Your task to perform on an android device: Show me popular videos on Youtube Image 0: 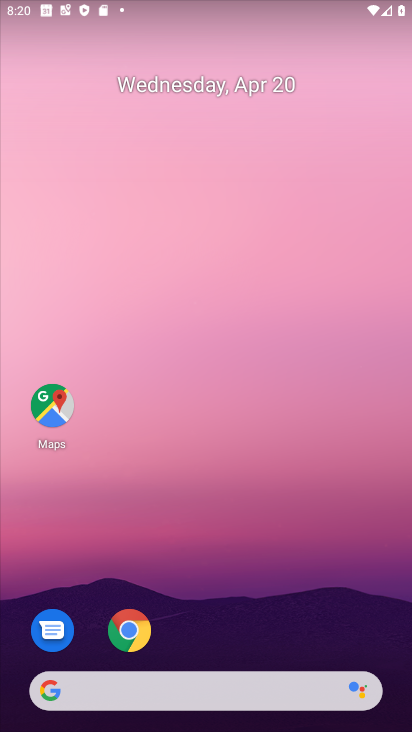
Step 0: drag from (258, 599) to (131, 2)
Your task to perform on an android device: Show me popular videos on Youtube Image 1: 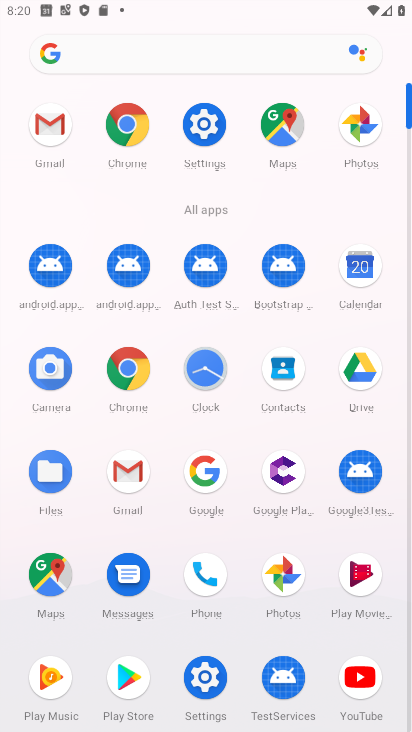
Step 1: click (364, 678)
Your task to perform on an android device: Show me popular videos on Youtube Image 2: 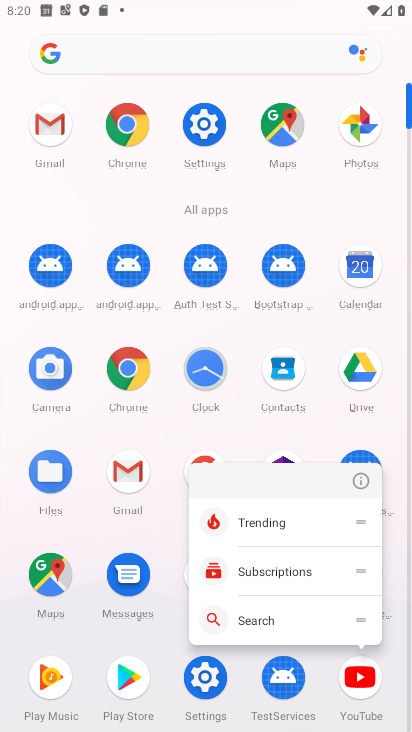
Step 2: click (364, 678)
Your task to perform on an android device: Show me popular videos on Youtube Image 3: 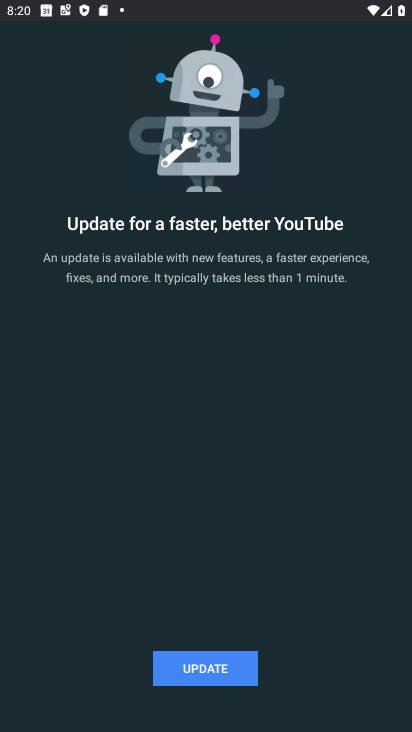
Step 3: click (234, 665)
Your task to perform on an android device: Show me popular videos on Youtube Image 4: 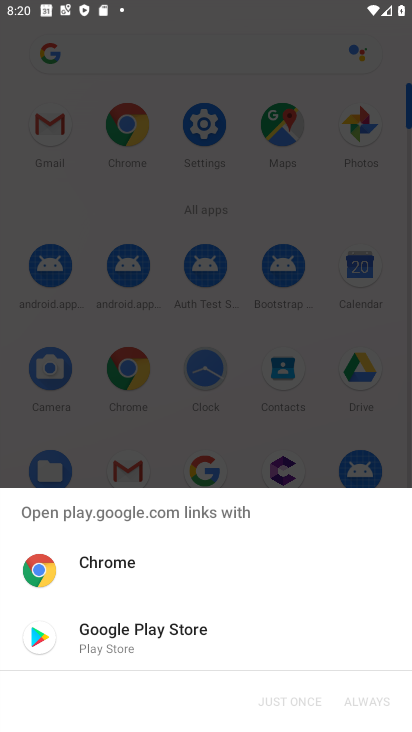
Step 4: click (179, 632)
Your task to perform on an android device: Show me popular videos on Youtube Image 5: 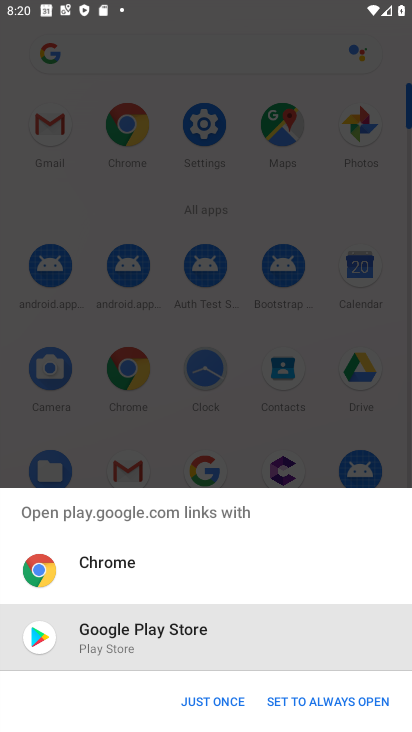
Step 5: click (206, 696)
Your task to perform on an android device: Show me popular videos on Youtube Image 6: 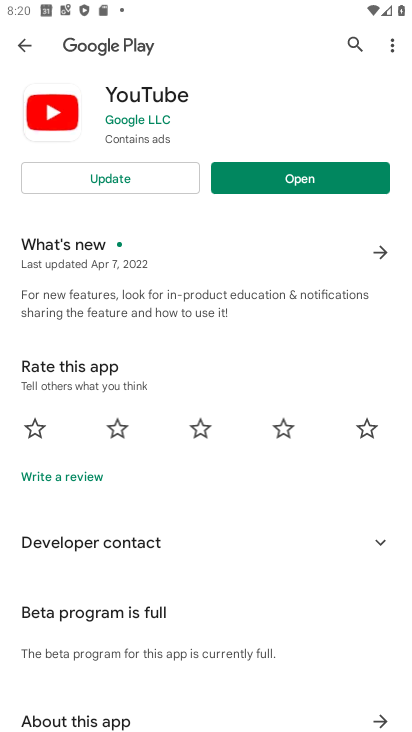
Step 6: click (144, 180)
Your task to perform on an android device: Show me popular videos on Youtube Image 7: 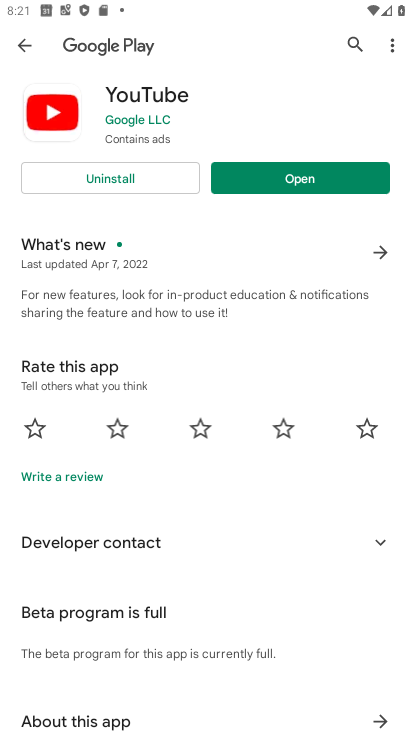
Step 7: click (306, 177)
Your task to perform on an android device: Show me popular videos on Youtube Image 8: 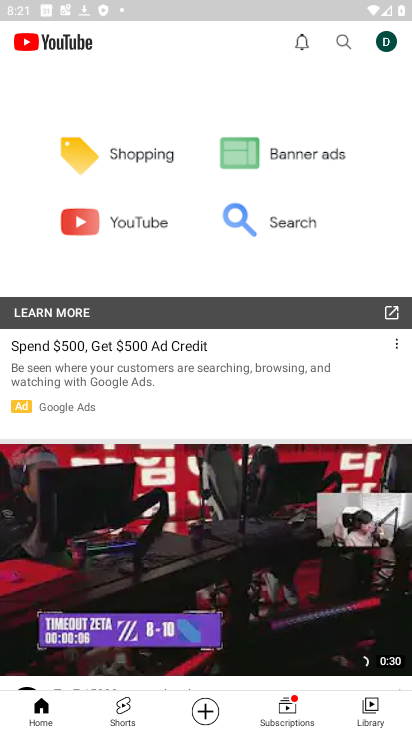
Step 8: click (62, 83)
Your task to perform on an android device: Show me popular videos on Youtube Image 9: 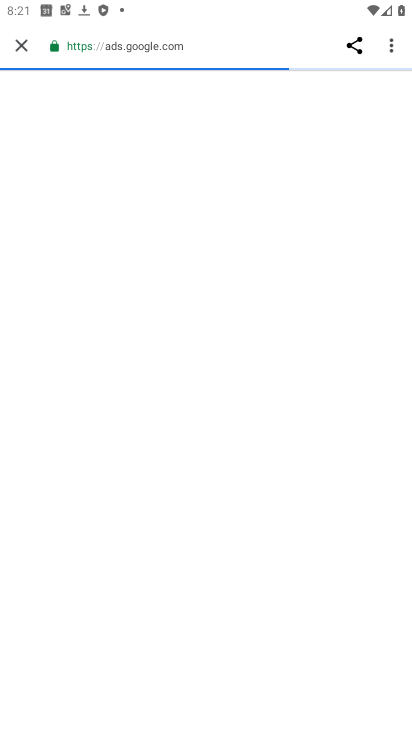
Step 9: click (26, 52)
Your task to perform on an android device: Show me popular videos on Youtube Image 10: 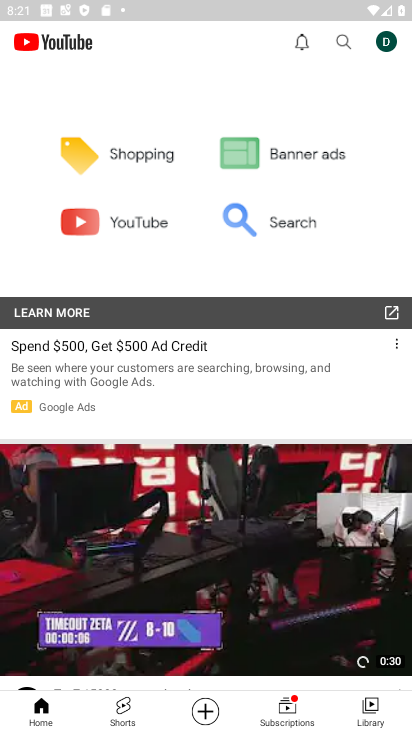
Step 10: drag from (160, 322) to (166, 455)
Your task to perform on an android device: Show me popular videos on Youtube Image 11: 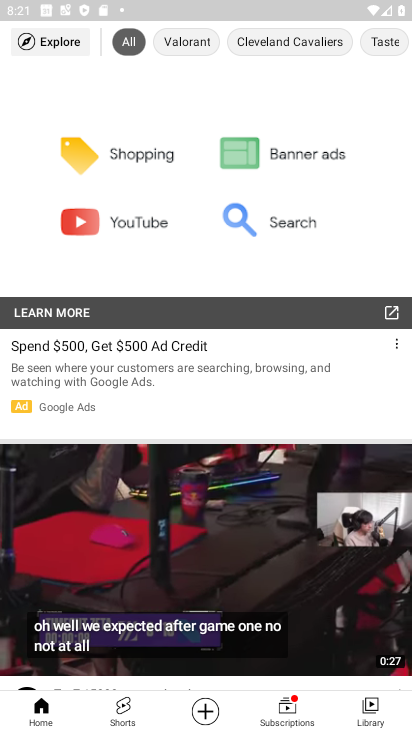
Step 11: click (46, 37)
Your task to perform on an android device: Show me popular videos on Youtube Image 12: 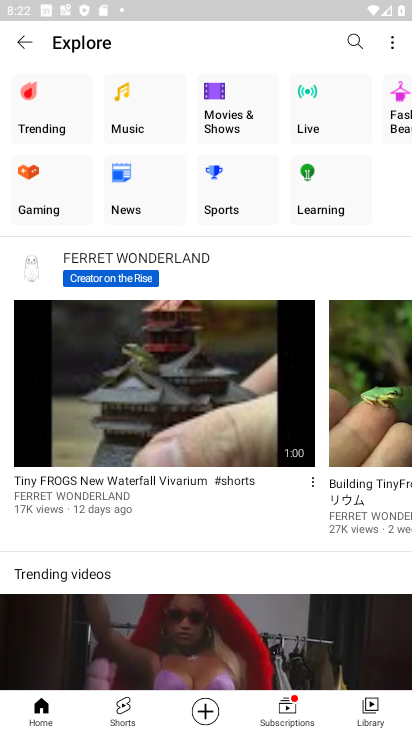
Step 12: click (61, 107)
Your task to perform on an android device: Show me popular videos on Youtube Image 13: 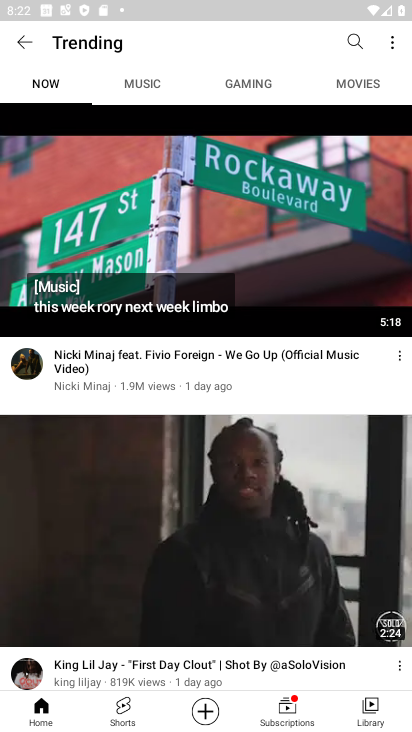
Step 13: click (61, 107)
Your task to perform on an android device: Show me popular videos on Youtube Image 14: 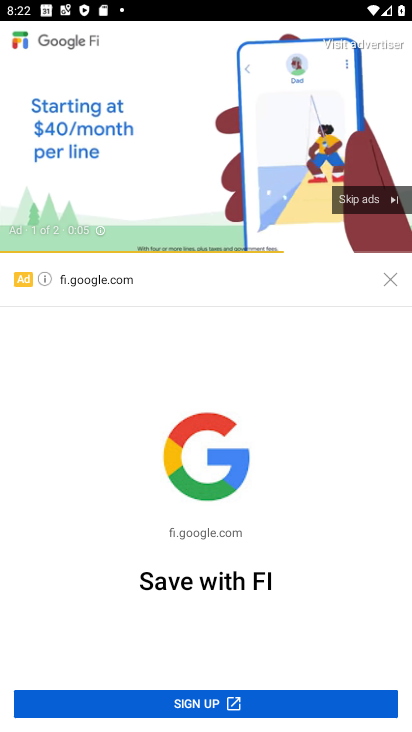
Step 14: task complete